Your task to perform on an android device: turn off priority inbox in the gmail app Image 0: 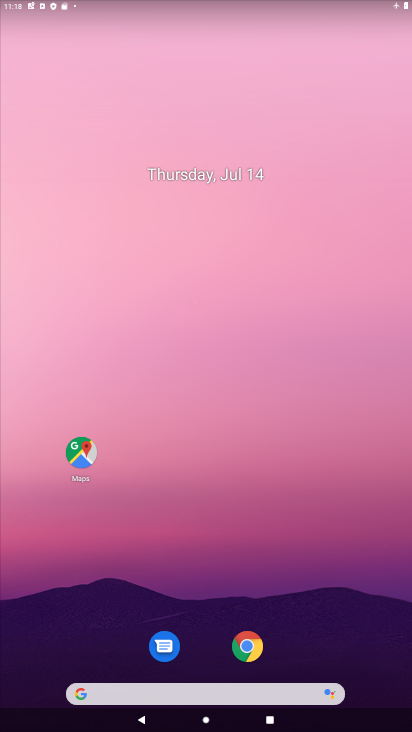
Step 0: drag from (197, 628) to (133, 206)
Your task to perform on an android device: turn off priority inbox in the gmail app Image 1: 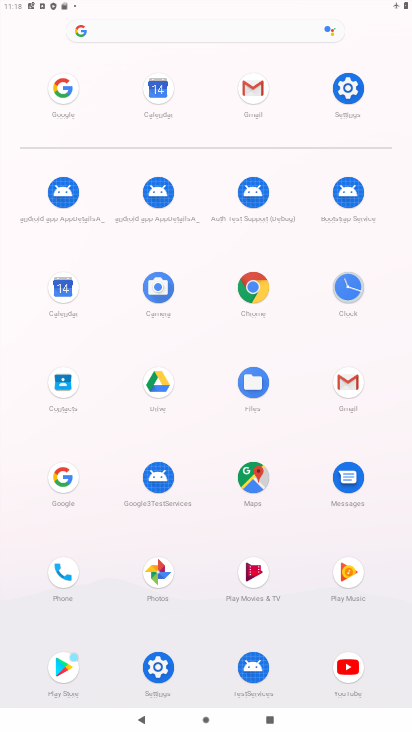
Step 1: click (240, 99)
Your task to perform on an android device: turn off priority inbox in the gmail app Image 2: 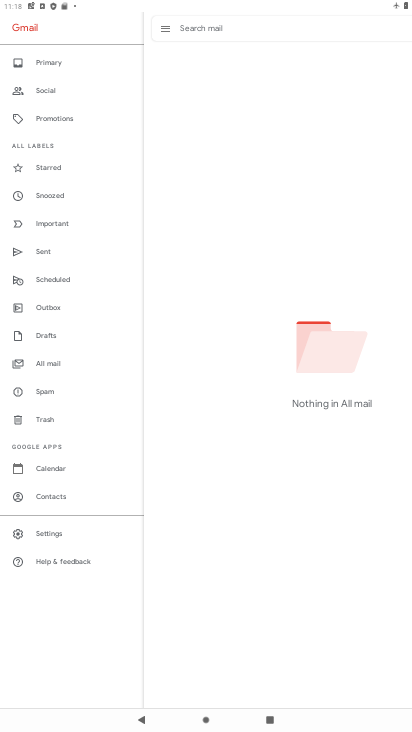
Step 2: click (74, 533)
Your task to perform on an android device: turn off priority inbox in the gmail app Image 3: 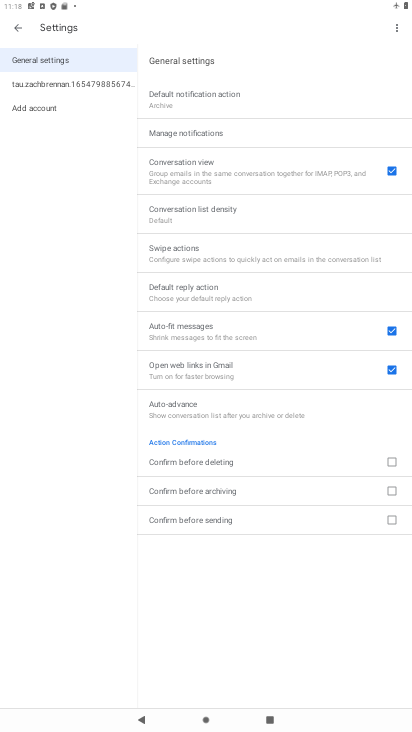
Step 3: click (56, 90)
Your task to perform on an android device: turn off priority inbox in the gmail app Image 4: 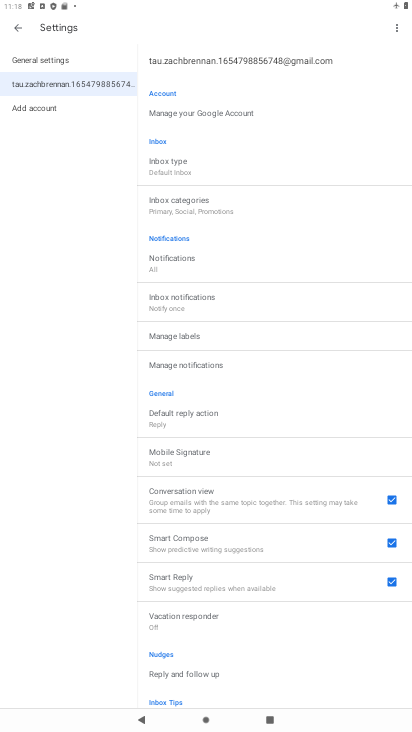
Step 4: click (170, 174)
Your task to perform on an android device: turn off priority inbox in the gmail app Image 5: 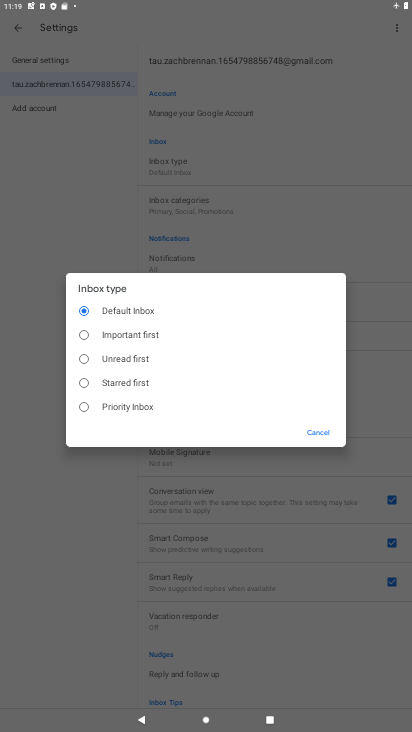
Step 5: task complete